Your task to perform on an android device: turn off location history Image 0: 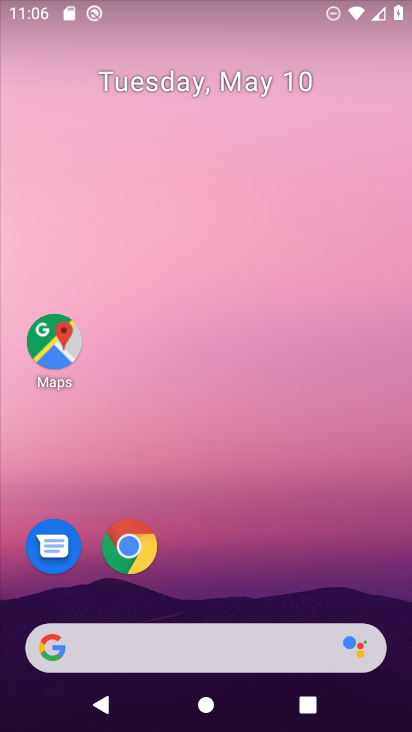
Step 0: drag from (294, 553) to (254, 101)
Your task to perform on an android device: turn off location history Image 1: 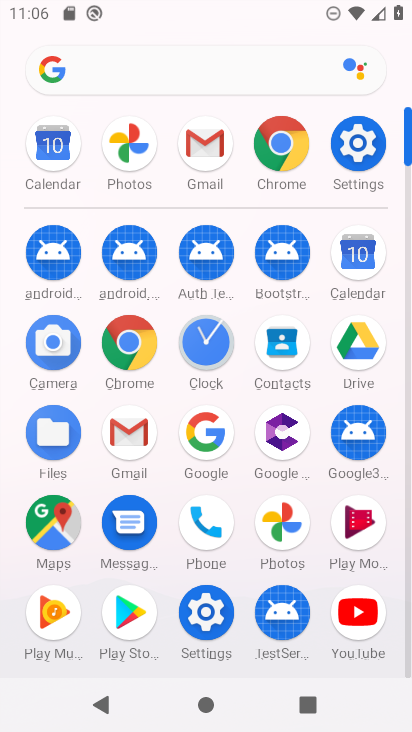
Step 1: click (368, 133)
Your task to perform on an android device: turn off location history Image 2: 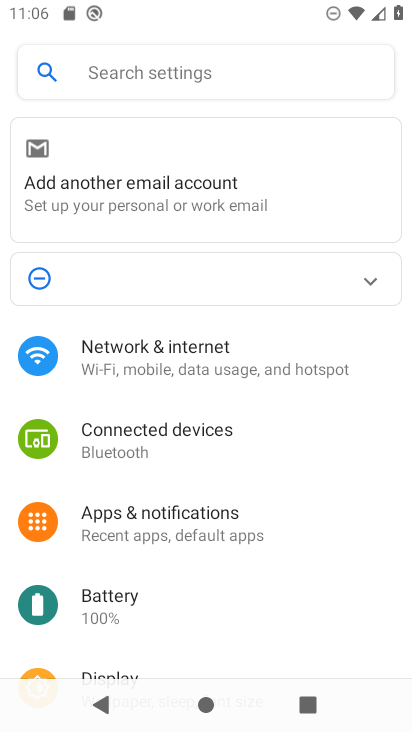
Step 2: drag from (186, 548) to (323, 205)
Your task to perform on an android device: turn off location history Image 3: 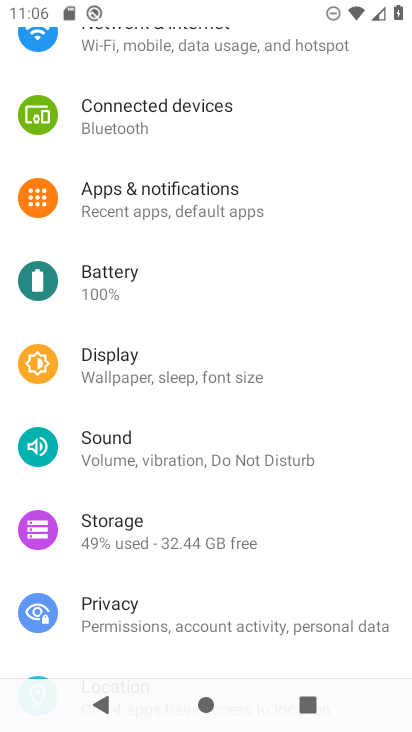
Step 3: drag from (241, 495) to (286, 200)
Your task to perform on an android device: turn off location history Image 4: 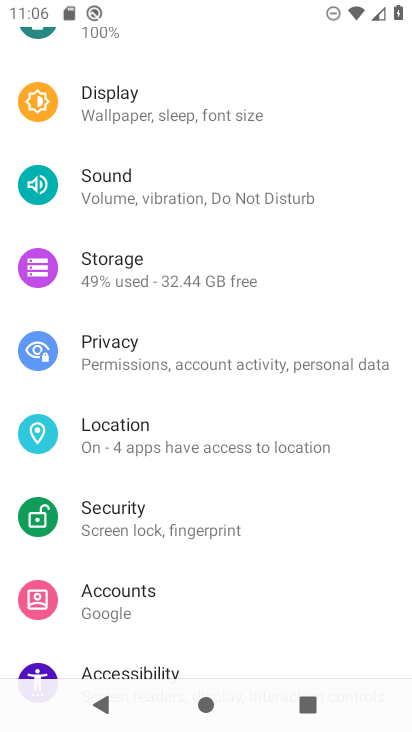
Step 4: drag from (202, 533) to (270, 329)
Your task to perform on an android device: turn off location history Image 5: 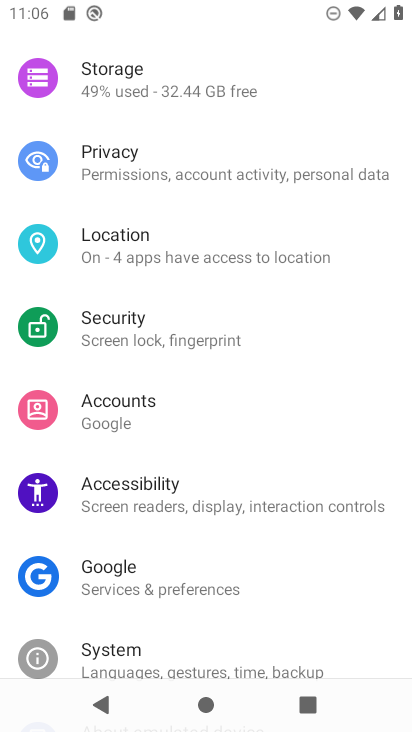
Step 5: click (229, 268)
Your task to perform on an android device: turn off location history Image 6: 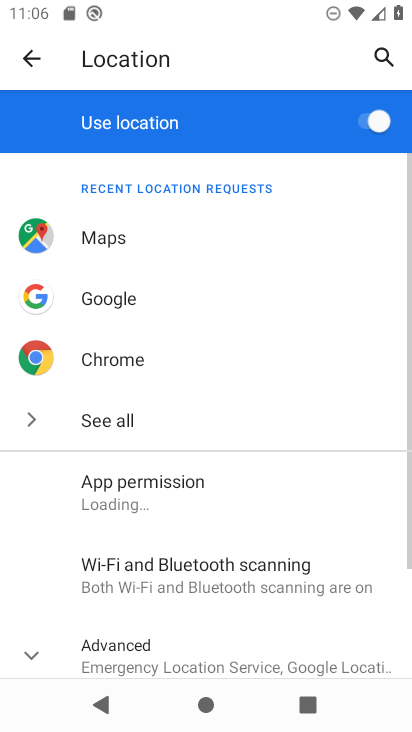
Step 6: drag from (287, 585) to (392, 209)
Your task to perform on an android device: turn off location history Image 7: 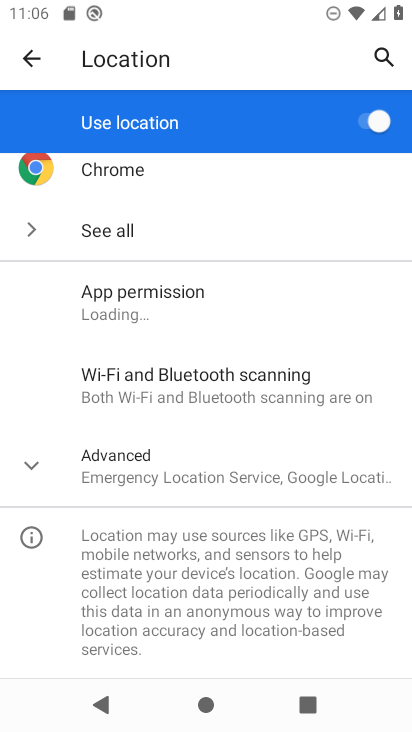
Step 7: drag from (304, 468) to (318, 271)
Your task to perform on an android device: turn off location history Image 8: 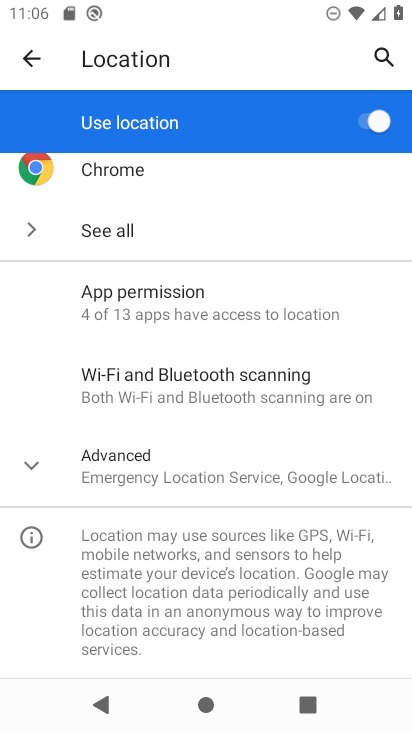
Step 8: click (277, 475)
Your task to perform on an android device: turn off location history Image 9: 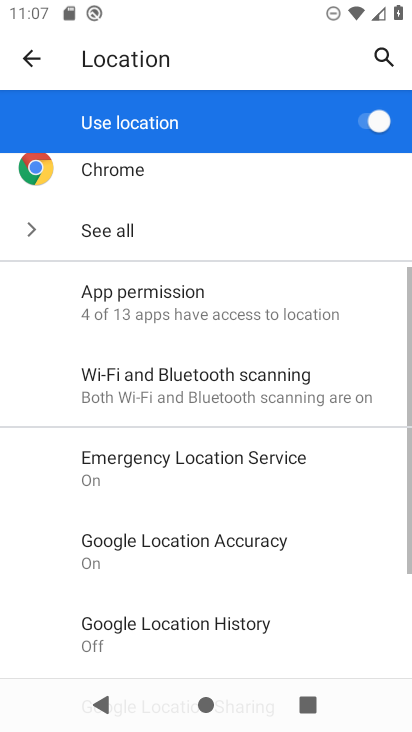
Step 9: drag from (348, 628) to (374, 292)
Your task to perform on an android device: turn off location history Image 10: 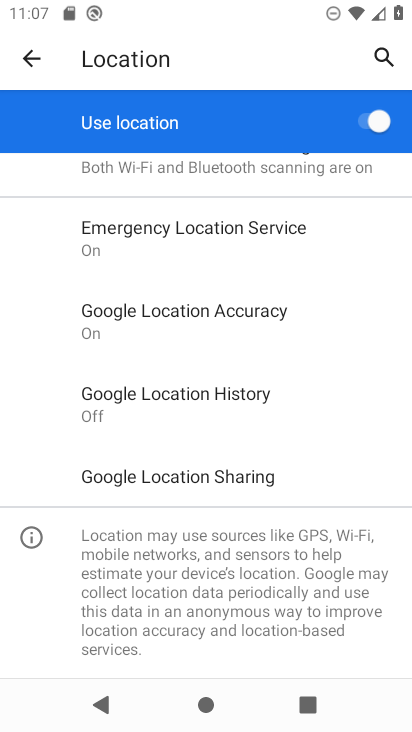
Step 10: click (209, 397)
Your task to perform on an android device: turn off location history Image 11: 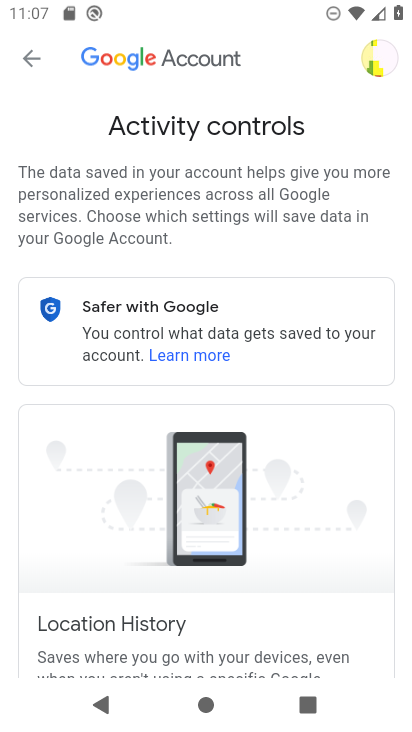
Step 11: drag from (329, 549) to (356, 11)
Your task to perform on an android device: turn off location history Image 12: 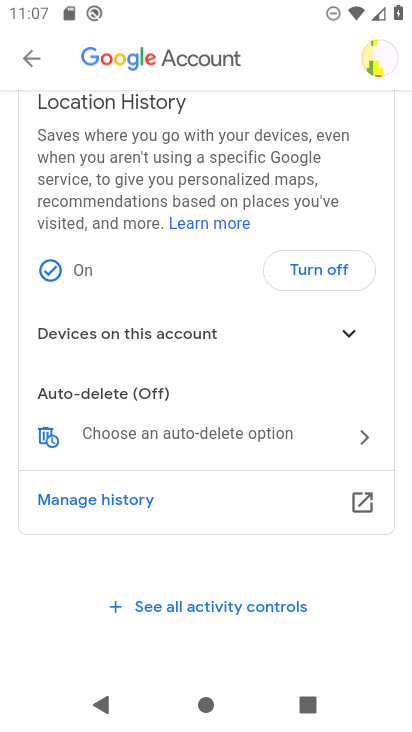
Step 12: click (345, 274)
Your task to perform on an android device: turn off location history Image 13: 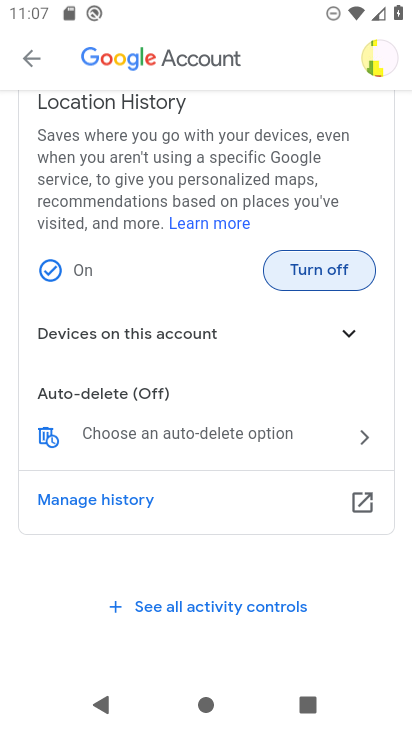
Step 13: click (337, 265)
Your task to perform on an android device: turn off location history Image 14: 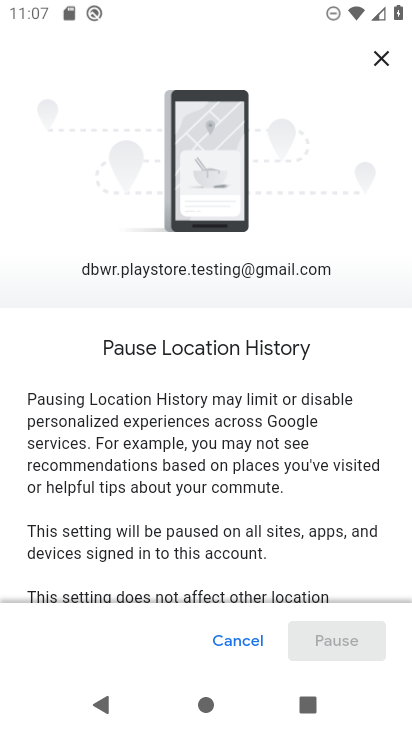
Step 14: drag from (320, 507) to (357, 87)
Your task to perform on an android device: turn off location history Image 15: 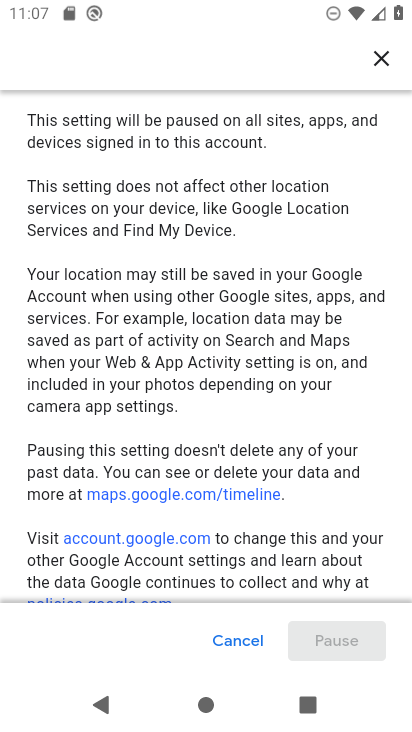
Step 15: drag from (344, 497) to (341, 104)
Your task to perform on an android device: turn off location history Image 16: 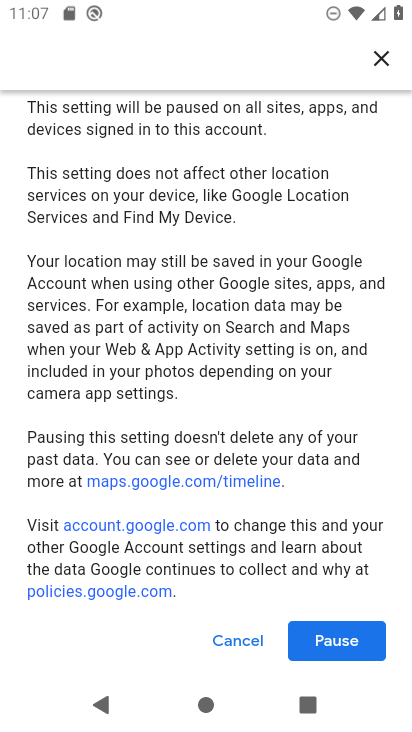
Step 16: click (355, 638)
Your task to perform on an android device: turn off location history Image 17: 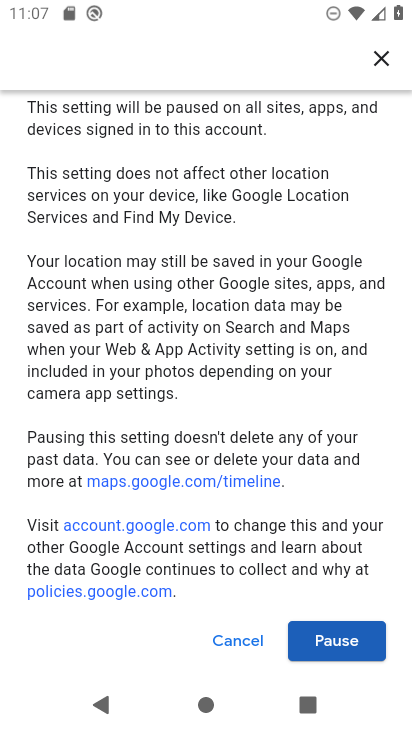
Step 17: click (353, 637)
Your task to perform on an android device: turn off location history Image 18: 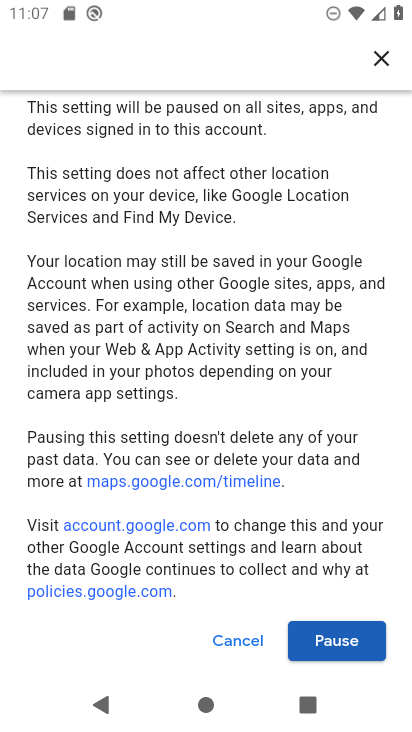
Step 18: click (322, 641)
Your task to perform on an android device: turn off location history Image 19: 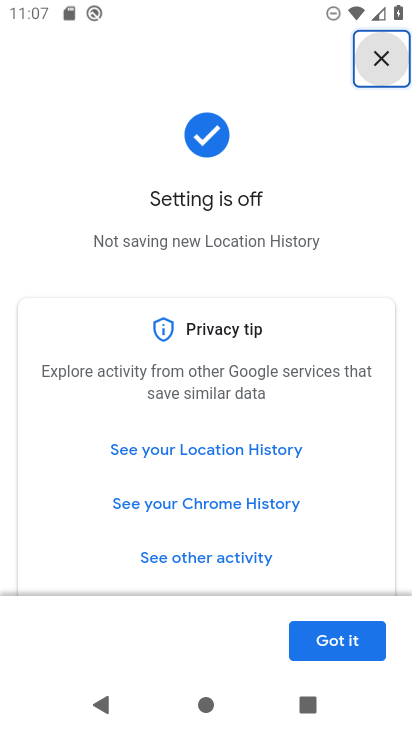
Step 19: task complete